Your task to perform on an android device: change timer sound Image 0: 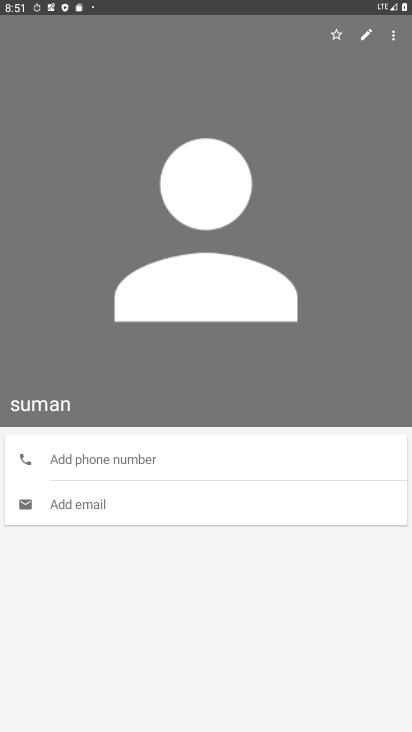
Step 0: press home button
Your task to perform on an android device: change timer sound Image 1: 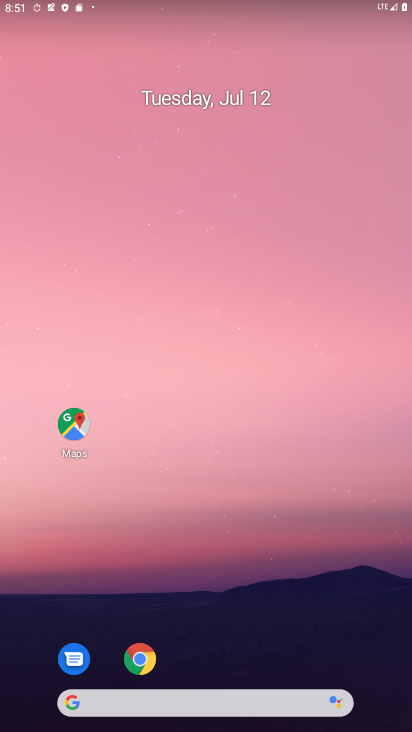
Step 1: drag from (387, 674) to (214, 1)
Your task to perform on an android device: change timer sound Image 2: 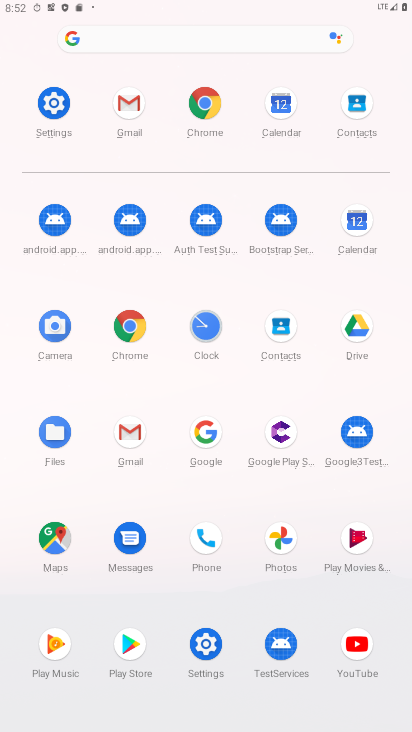
Step 2: click (203, 328)
Your task to perform on an android device: change timer sound Image 3: 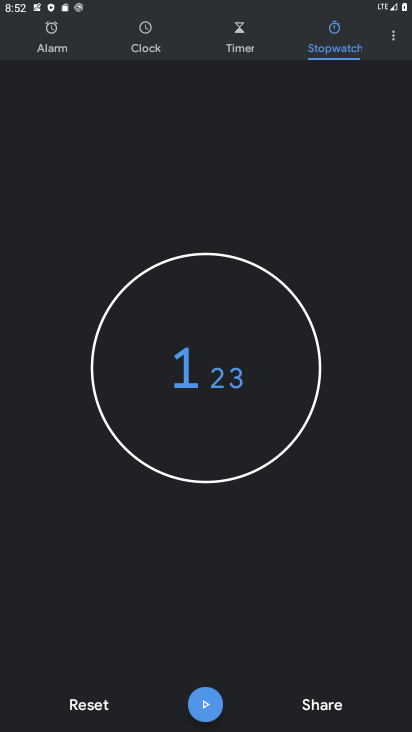
Step 3: click (388, 34)
Your task to perform on an android device: change timer sound Image 4: 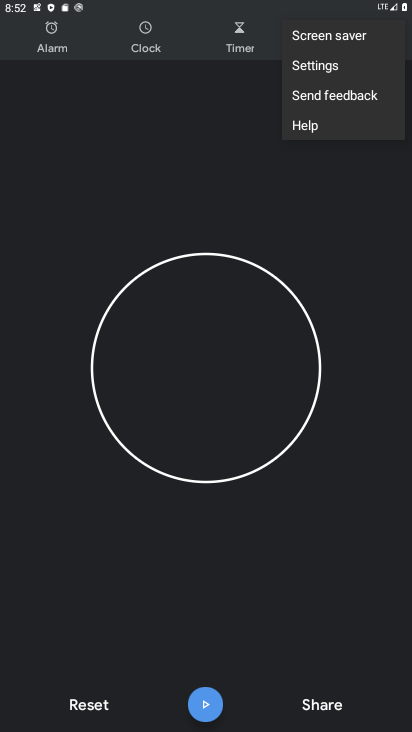
Step 4: click (332, 62)
Your task to perform on an android device: change timer sound Image 5: 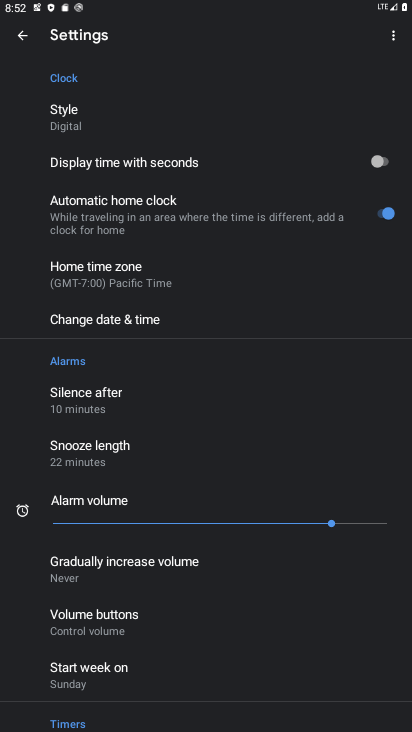
Step 5: drag from (125, 660) to (175, 227)
Your task to perform on an android device: change timer sound Image 6: 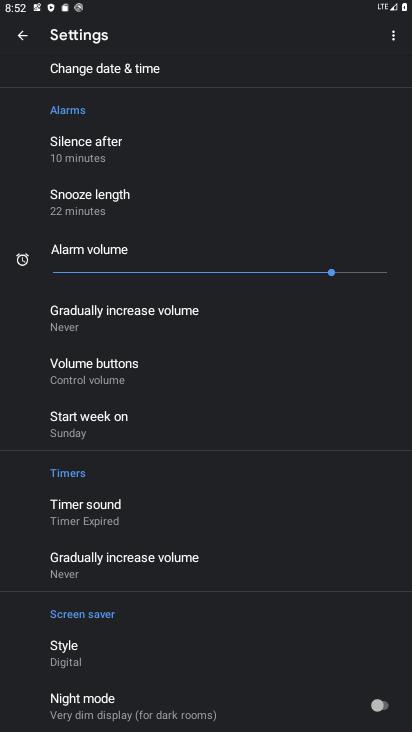
Step 6: click (146, 511)
Your task to perform on an android device: change timer sound Image 7: 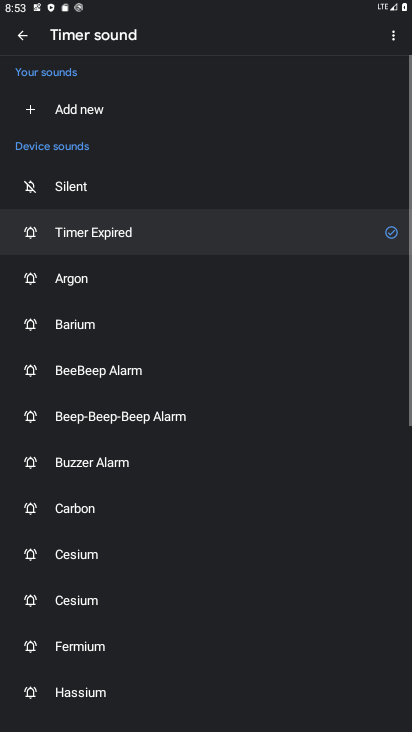
Step 7: click (133, 365)
Your task to perform on an android device: change timer sound Image 8: 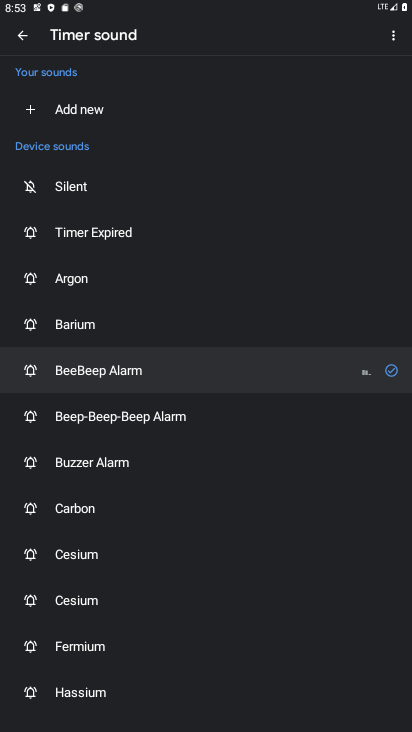
Step 8: task complete